Your task to perform on an android device: Open Wikipedia Image 0: 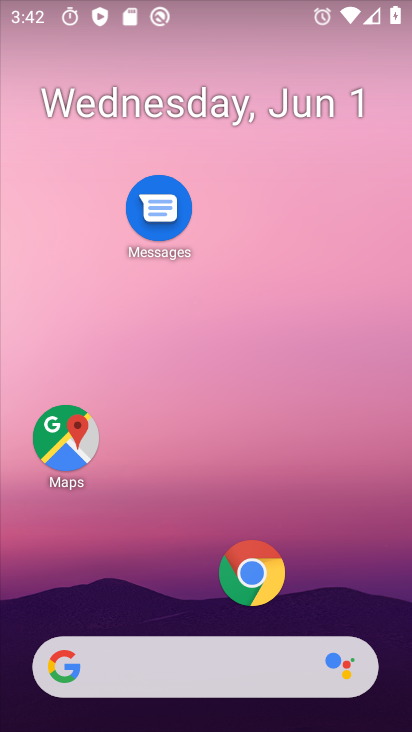
Step 0: click (249, 585)
Your task to perform on an android device: Open Wikipedia Image 1: 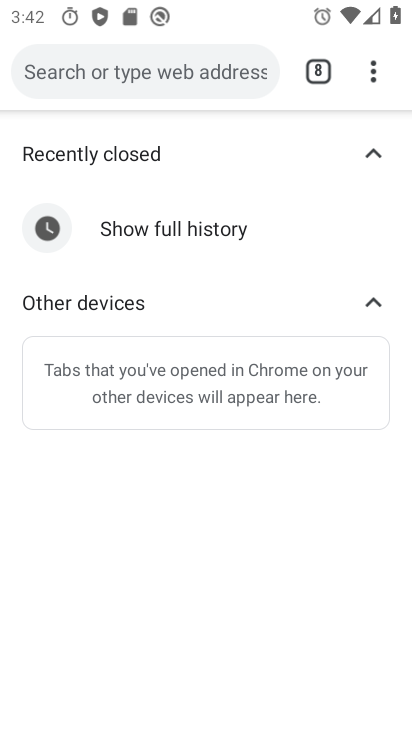
Step 1: click (315, 74)
Your task to perform on an android device: Open Wikipedia Image 2: 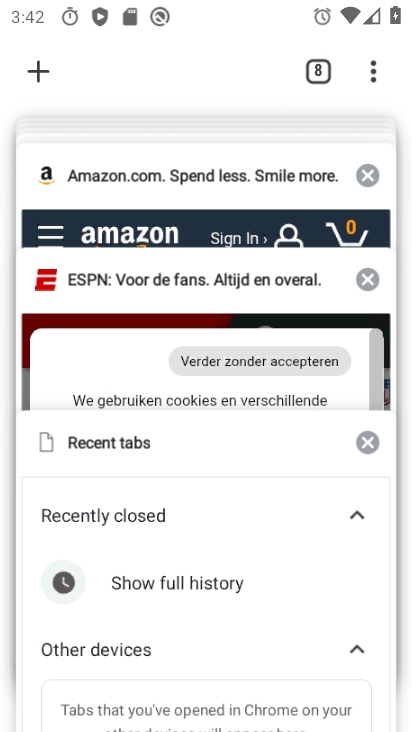
Step 2: click (33, 77)
Your task to perform on an android device: Open Wikipedia Image 3: 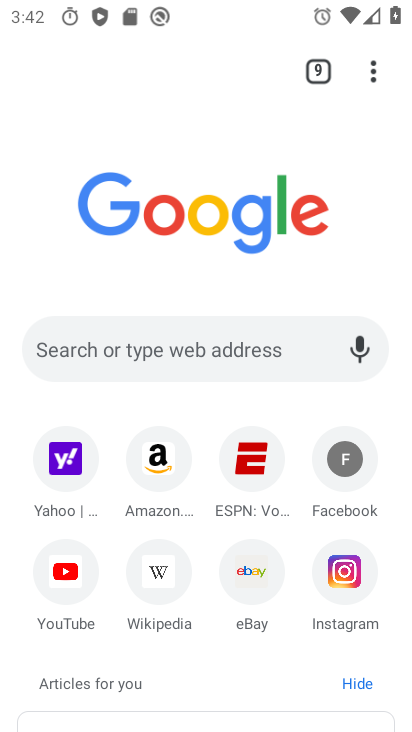
Step 3: click (166, 576)
Your task to perform on an android device: Open Wikipedia Image 4: 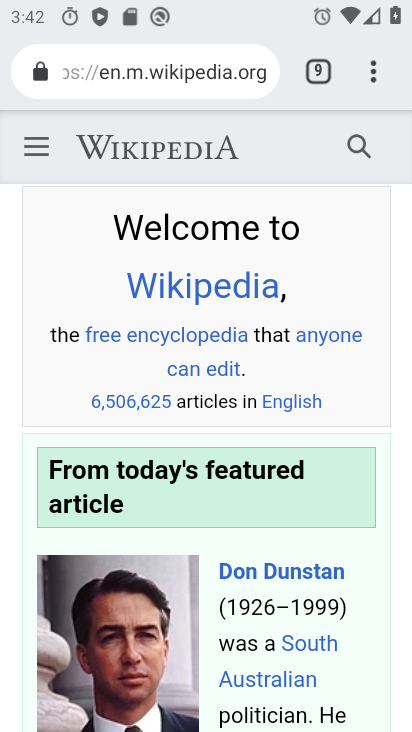
Step 4: task complete